Your task to perform on an android device: open chrome privacy settings Image 0: 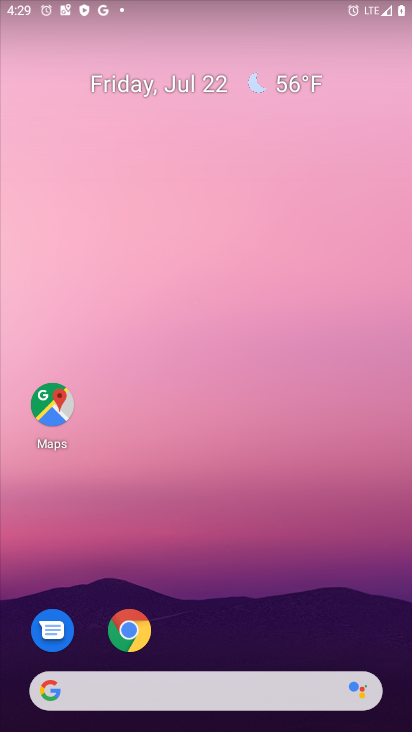
Step 0: click (124, 625)
Your task to perform on an android device: open chrome privacy settings Image 1: 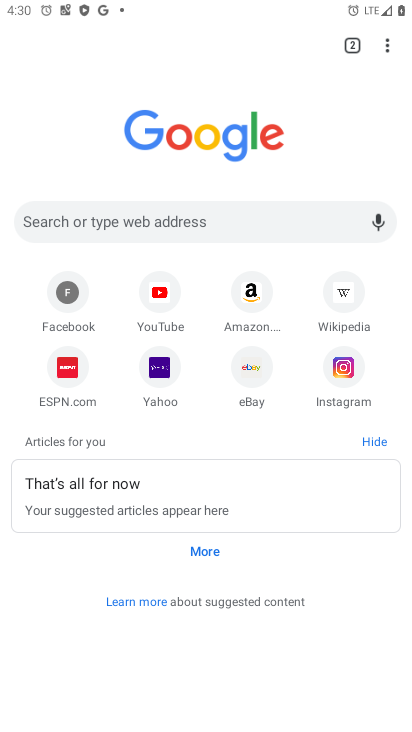
Step 1: drag from (388, 52) to (259, 378)
Your task to perform on an android device: open chrome privacy settings Image 2: 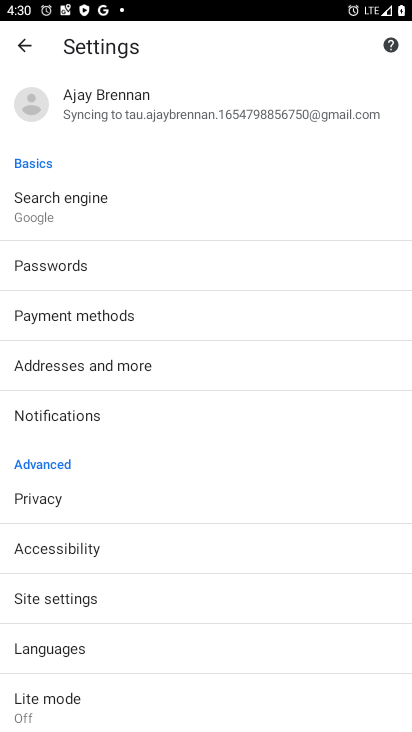
Step 2: click (99, 502)
Your task to perform on an android device: open chrome privacy settings Image 3: 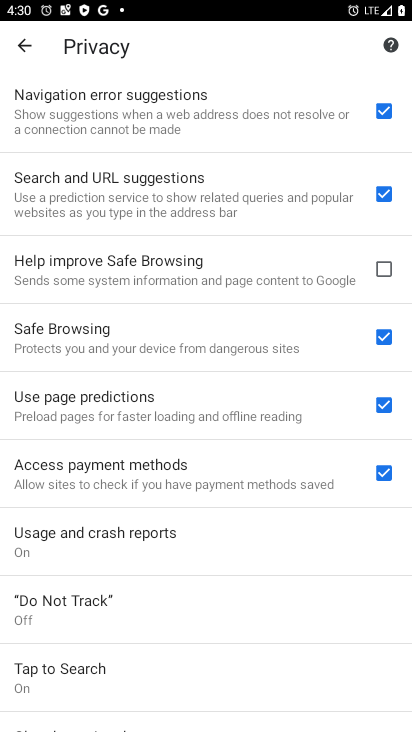
Step 3: task complete